Your task to perform on an android device: Go to Amazon Image 0: 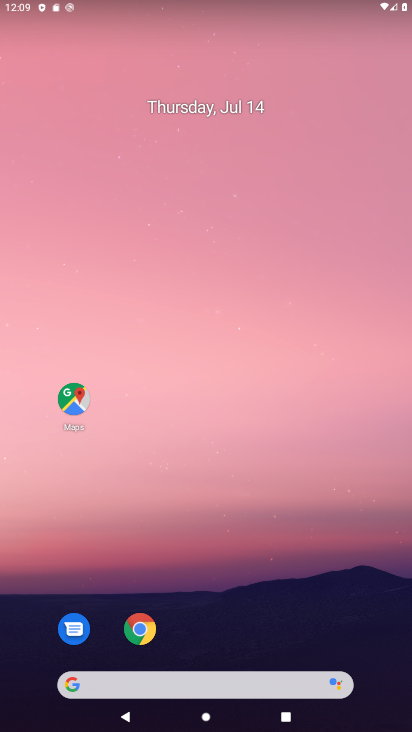
Step 0: drag from (313, 565) to (373, 142)
Your task to perform on an android device: Go to Amazon Image 1: 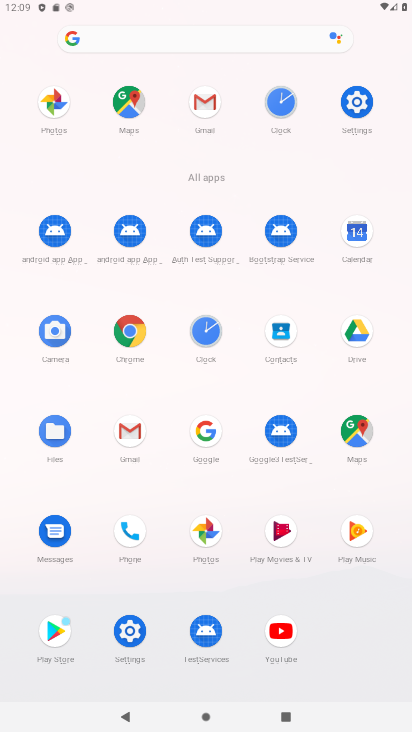
Step 1: click (133, 342)
Your task to perform on an android device: Go to Amazon Image 2: 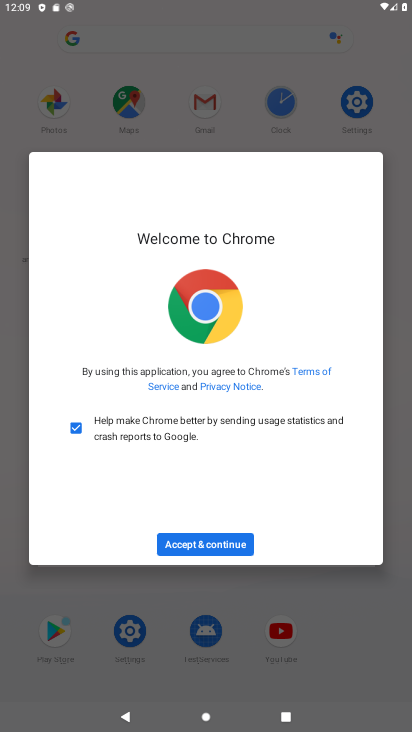
Step 2: click (216, 550)
Your task to perform on an android device: Go to Amazon Image 3: 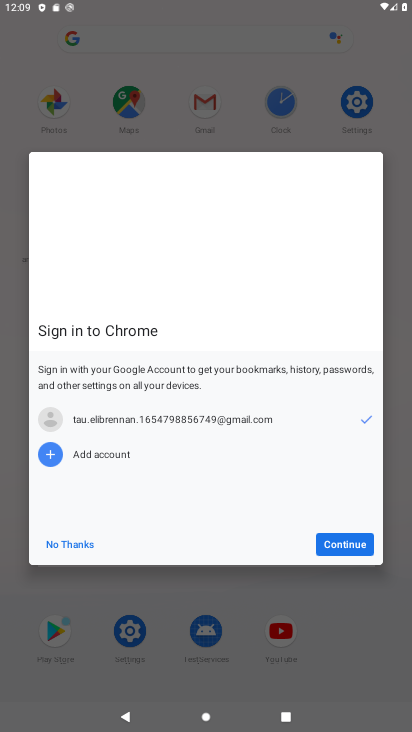
Step 3: click (348, 542)
Your task to perform on an android device: Go to Amazon Image 4: 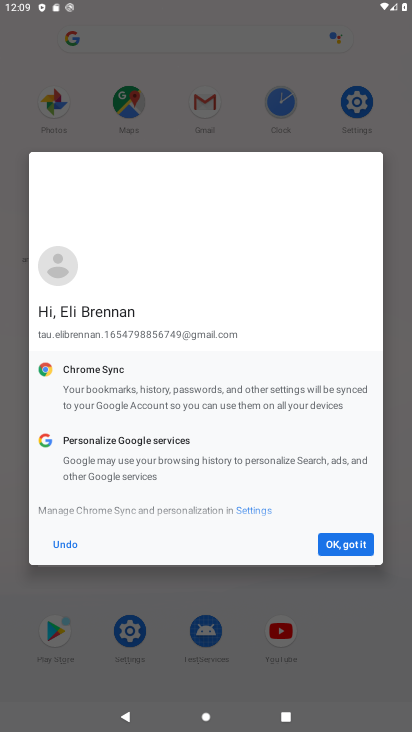
Step 4: click (348, 543)
Your task to perform on an android device: Go to Amazon Image 5: 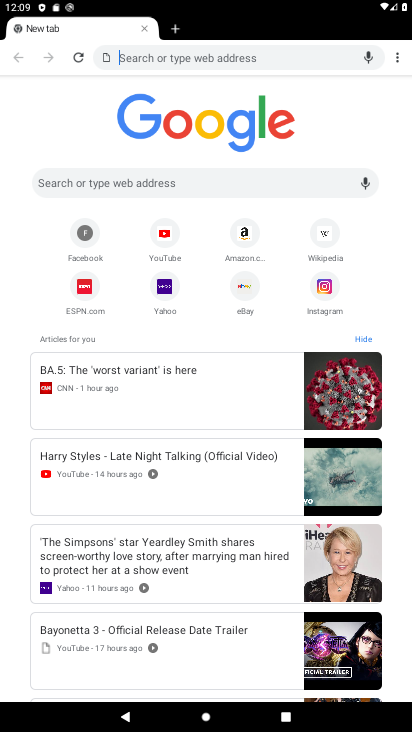
Step 5: click (248, 247)
Your task to perform on an android device: Go to Amazon Image 6: 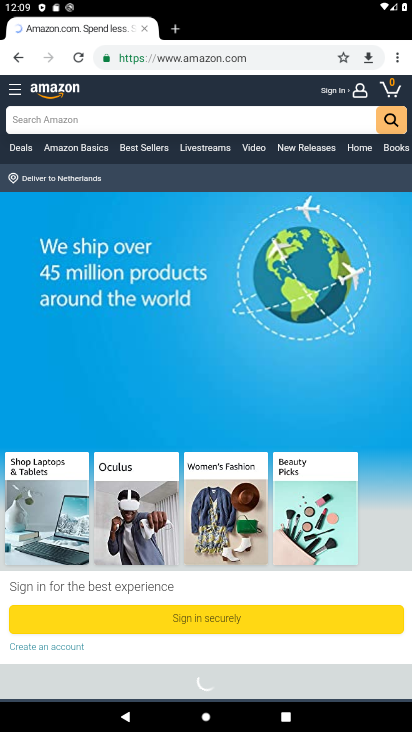
Step 6: task complete